Your task to perform on an android device: Find coffee shops on Maps Image 0: 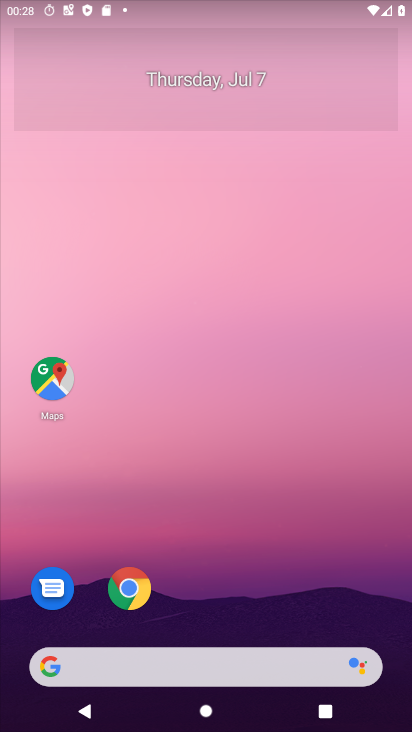
Step 0: drag from (239, 633) to (249, 93)
Your task to perform on an android device: Find coffee shops on Maps Image 1: 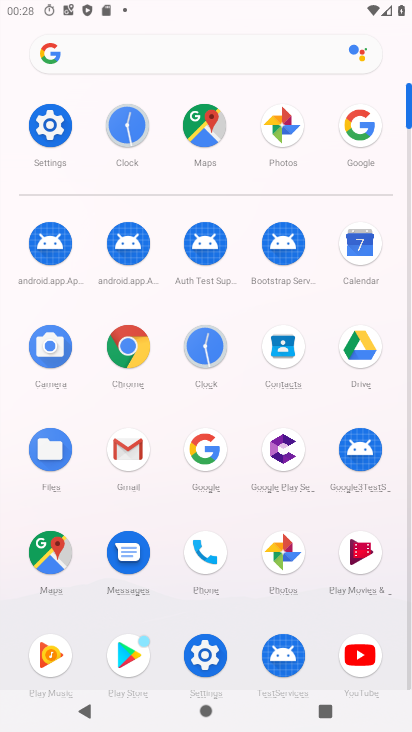
Step 1: click (55, 549)
Your task to perform on an android device: Find coffee shops on Maps Image 2: 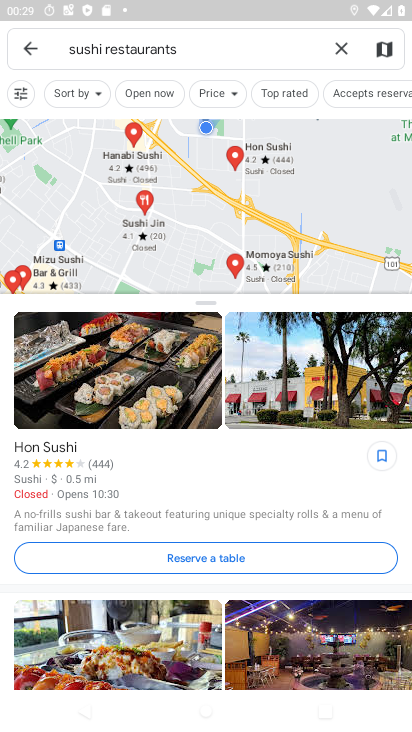
Step 2: click (347, 43)
Your task to perform on an android device: Find coffee shops on Maps Image 3: 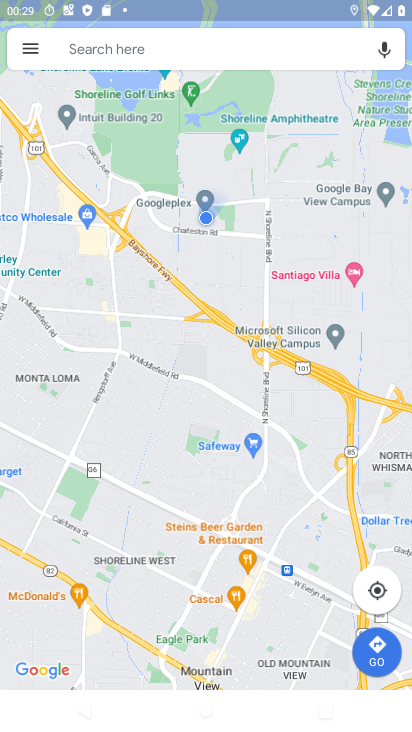
Step 3: click (271, 45)
Your task to perform on an android device: Find coffee shops on Maps Image 4: 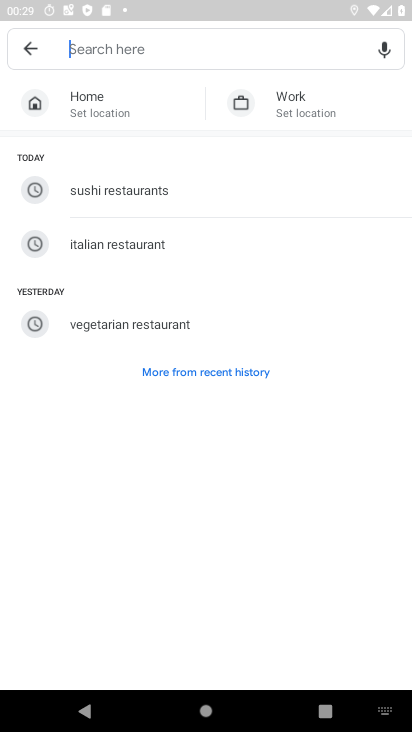
Step 4: type "Find coffee shops"
Your task to perform on an android device: Find coffee shops on Maps Image 5: 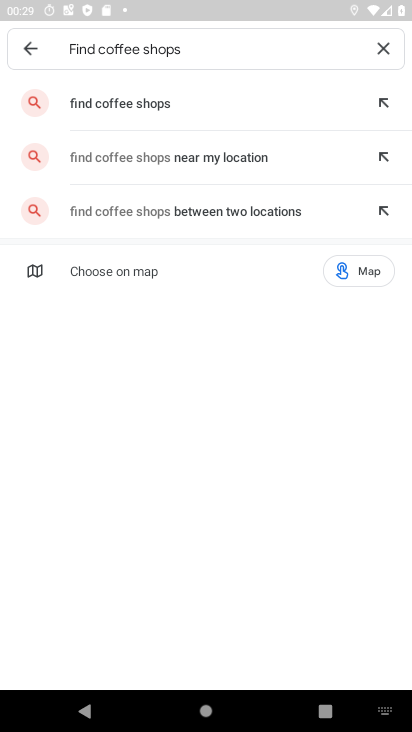
Step 5: click (150, 100)
Your task to perform on an android device: Find coffee shops on Maps Image 6: 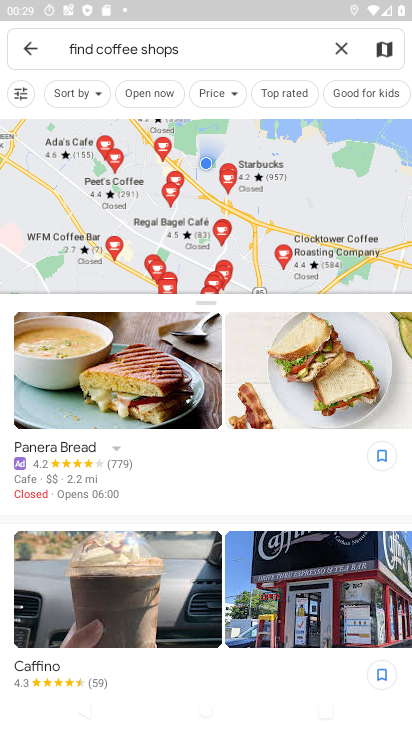
Step 6: task complete